Your task to perform on an android device: What is the recent news? Image 0: 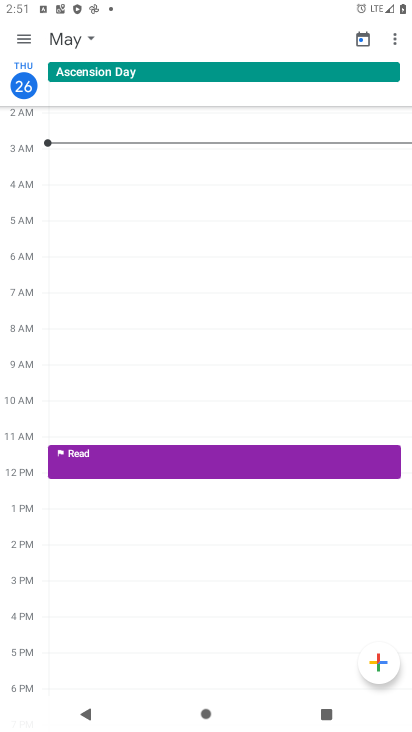
Step 0: press home button
Your task to perform on an android device: What is the recent news? Image 1: 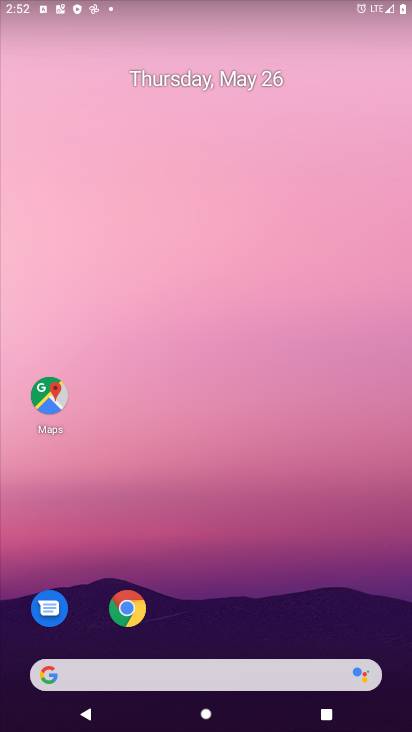
Step 1: task complete